Your task to perform on an android device: turn off picture-in-picture Image 0: 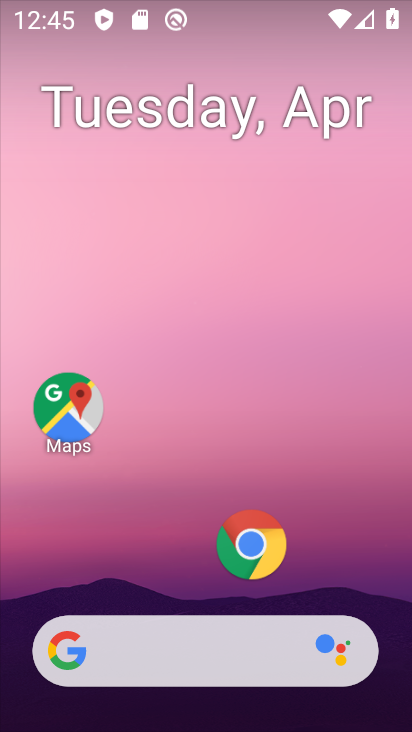
Step 0: drag from (177, 561) to (226, 247)
Your task to perform on an android device: turn off picture-in-picture Image 1: 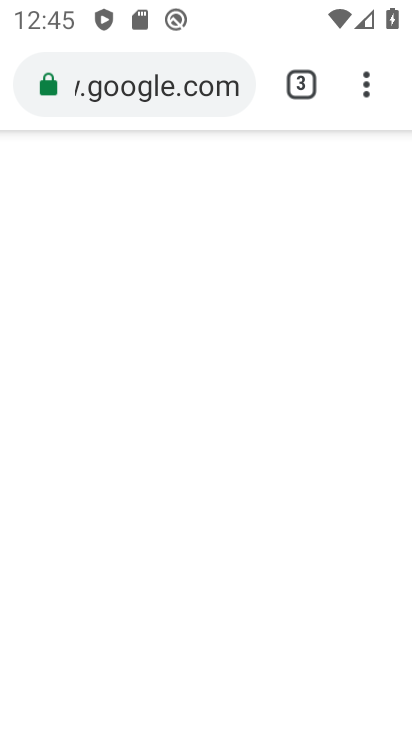
Step 1: press home button
Your task to perform on an android device: turn off picture-in-picture Image 2: 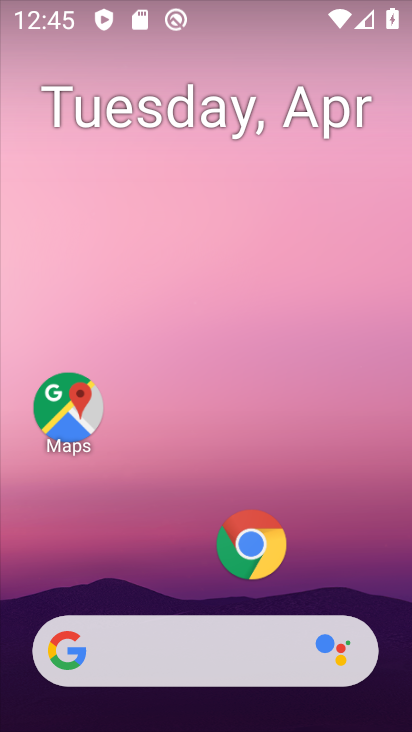
Step 2: drag from (150, 576) to (251, 137)
Your task to perform on an android device: turn off picture-in-picture Image 3: 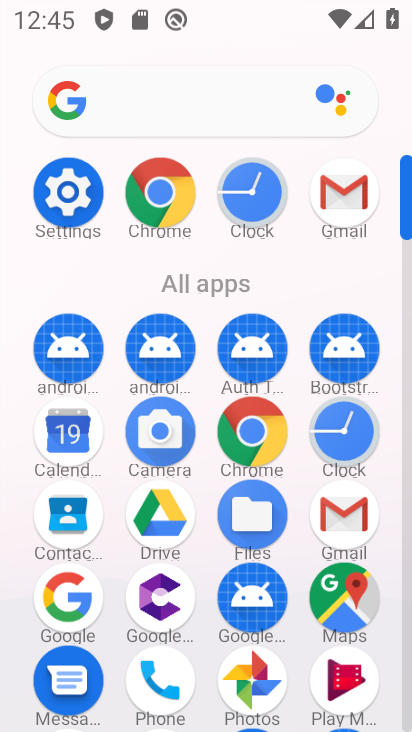
Step 3: click (58, 191)
Your task to perform on an android device: turn off picture-in-picture Image 4: 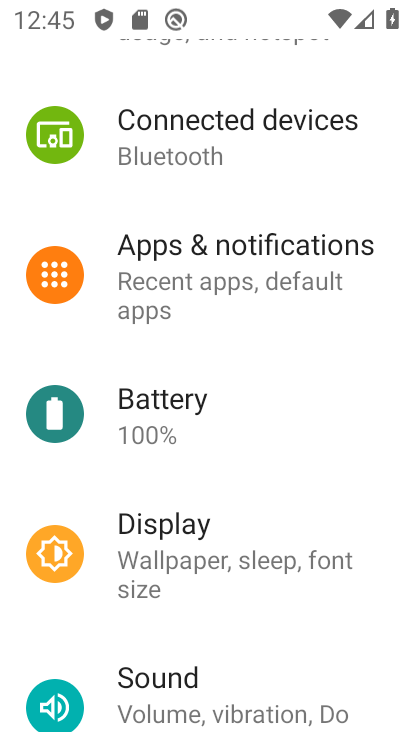
Step 4: drag from (211, 199) to (137, 660)
Your task to perform on an android device: turn off picture-in-picture Image 5: 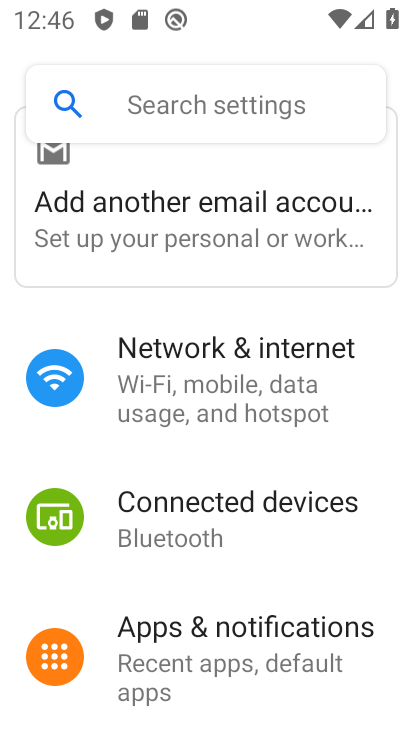
Step 5: click (178, 630)
Your task to perform on an android device: turn off picture-in-picture Image 6: 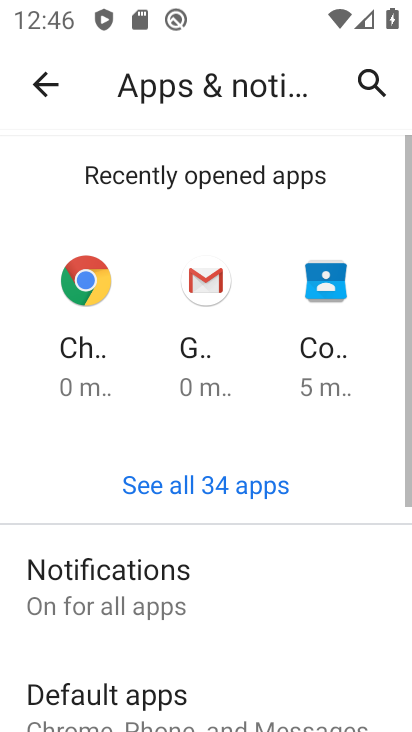
Step 6: drag from (315, 642) to (314, 124)
Your task to perform on an android device: turn off picture-in-picture Image 7: 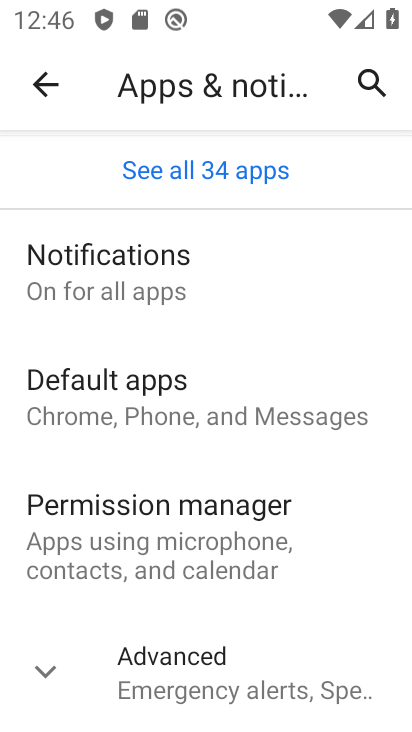
Step 7: click (204, 671)
Your task to perform on an android device: turn off picture-in-picture Image 8: 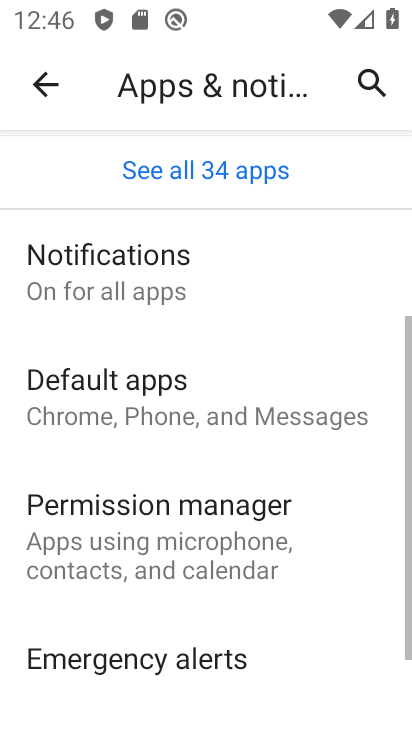
Step 8: drag from (204, 671) to (232, 150)
Your task to perform on an android device: turn off picture-in-picture Image 9: 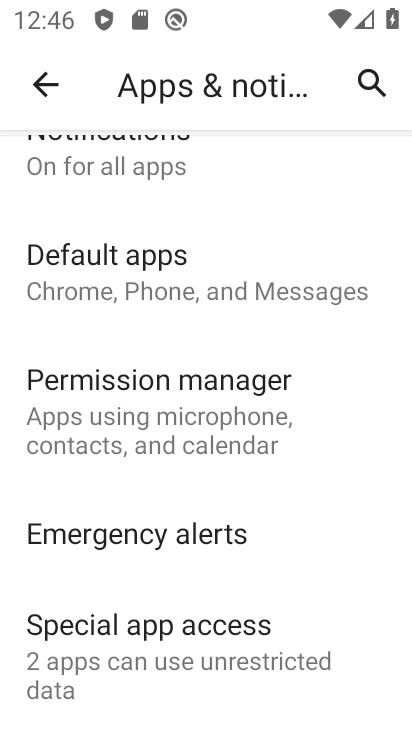
Step 9: click (136, 645)
Your task to perform on an android device: turn off picture-in-picture Image 10: 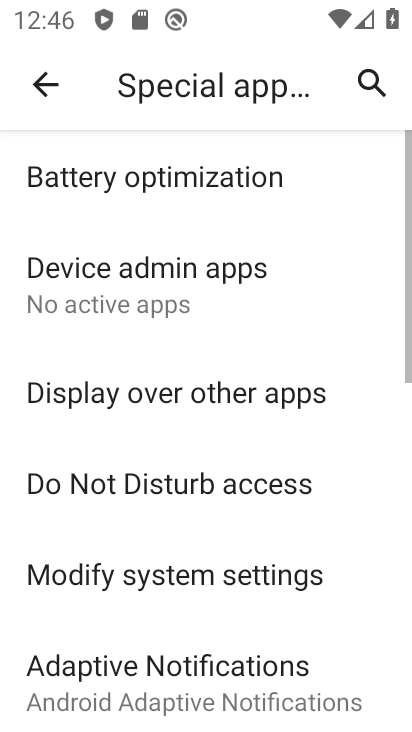
Step 10: drag from (253, 604) to (316, 148)
Your task to perform on an android device: turn off picture-in-picture Image 11: 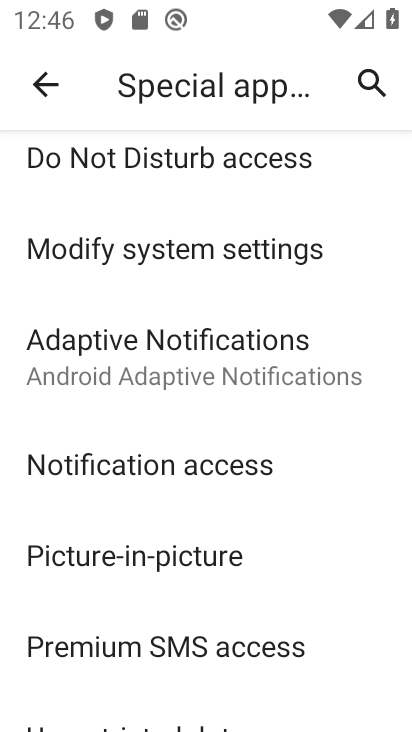
Step 11: click (185, 551)
Your task to perform on an android device: turn off picture-in-picture Image 12: 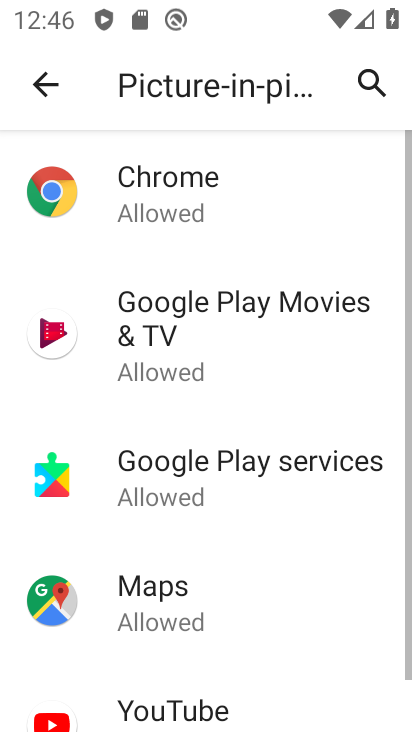
Step 12: drag from (231, 610) to (294, 138)
Your task to perform on an android device: turn off picture-in-picture Image 13: 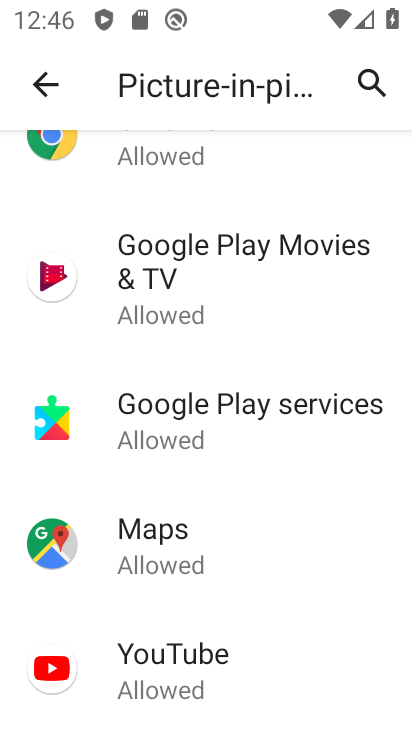
Step 13: click (153, 663)
Your task to perform on an android device: turn off picture-in-picture Image 14: 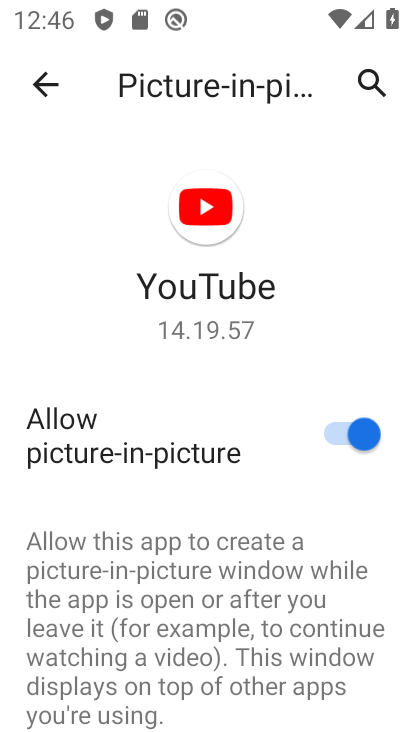
Step 14: click (337, 433)
Your task to perform on an android device: turn off picture-in-picture Image 15: 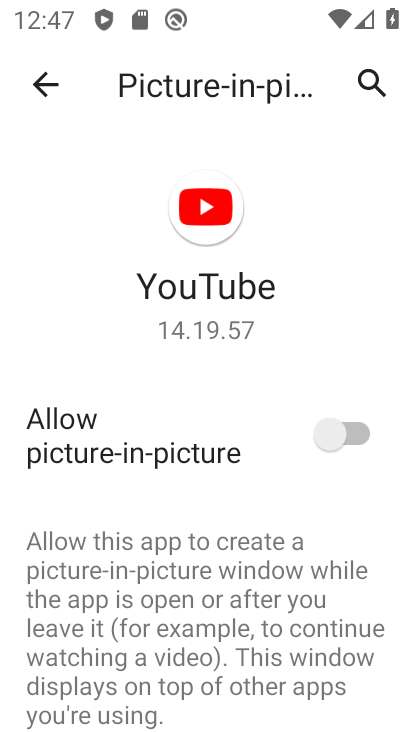
Step 15: task complete